Your task to perform on an android device: check out phone information Image 0: 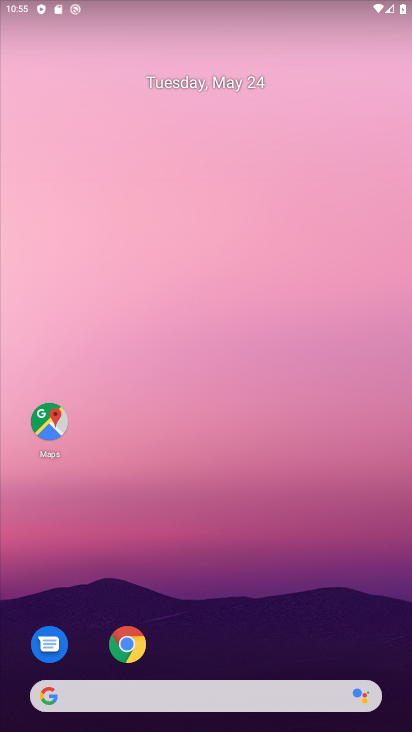
Step 0: drag from (244, 642) to (289, 161)
Your task to perform on an android device: check out phone information Image 1: 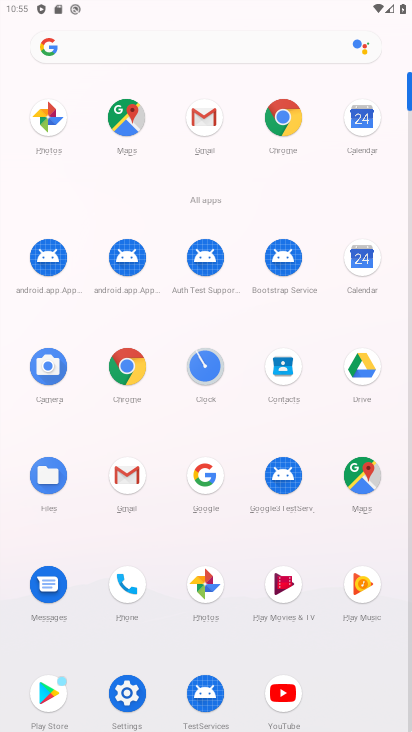
Step 1: click (123, 692)
Your task to perform on an android device: check out phone information Image 2: 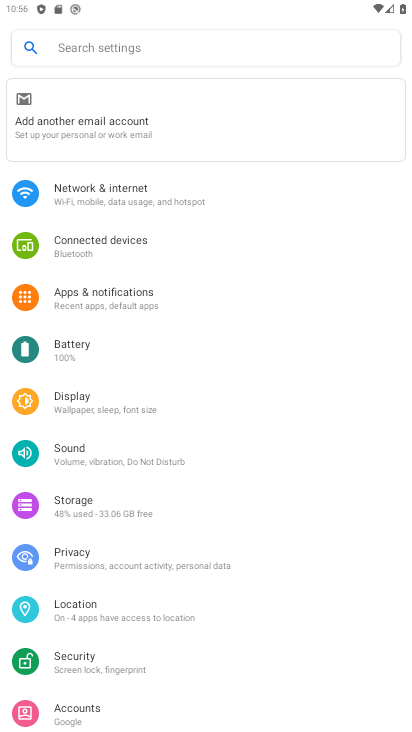
Step 2: drag from (116, 489) to (148, 408)
Your task to perform on an android device: check out phone information Image 3: 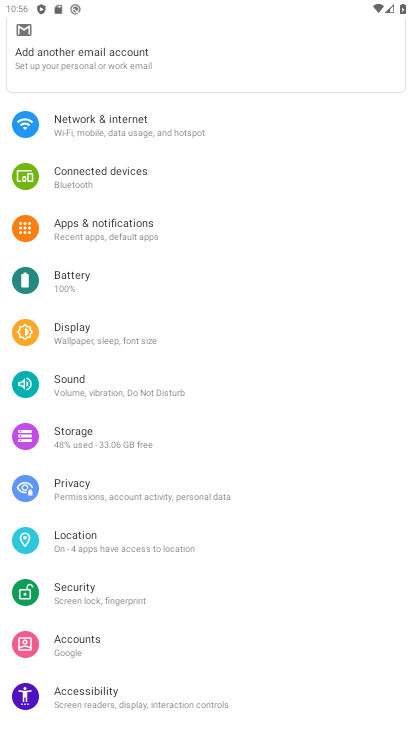
Step 3: drag from (123, 576) to (184, 495)
Your task to perform on an android device: check out phone information Image 4: 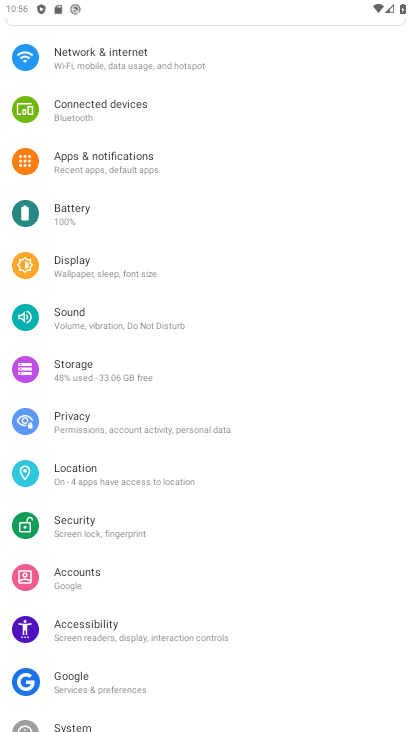
Step 4: drag from (132, 592) to (188, 525)
Your task to perform on an android device: check out phone information Image 5: 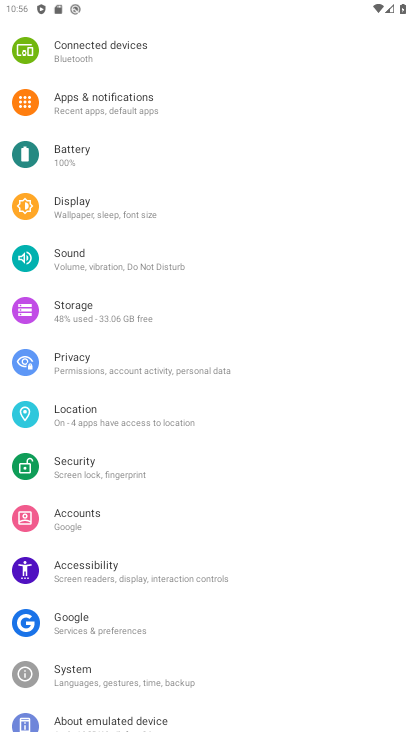
Step 5: drag from (133, 610) to (211, 518)
Your task to perform on an android device: check out phone information Image 6: 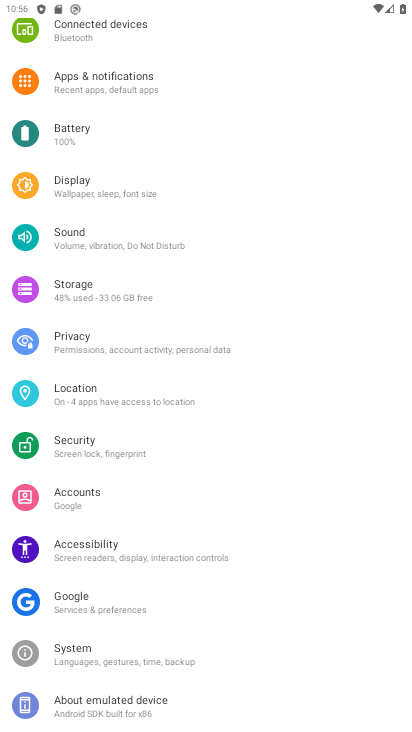
Step 6: click (129, 699)
Your task to perform on an android device: check out phone information Image 7: 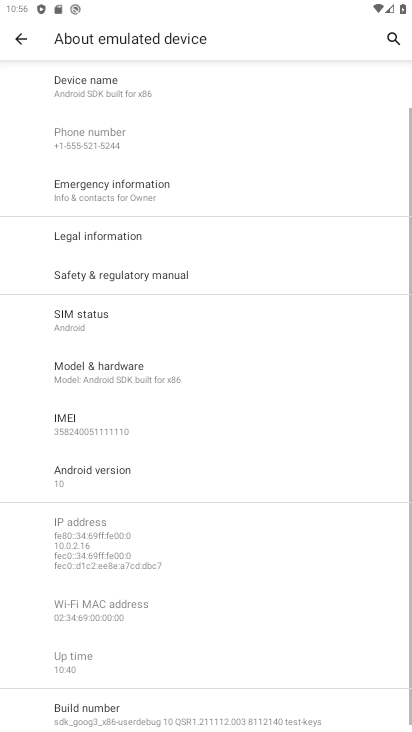
Step 7: task complete